Your task to perform on an android device: Turn off the flashlight Image 0: 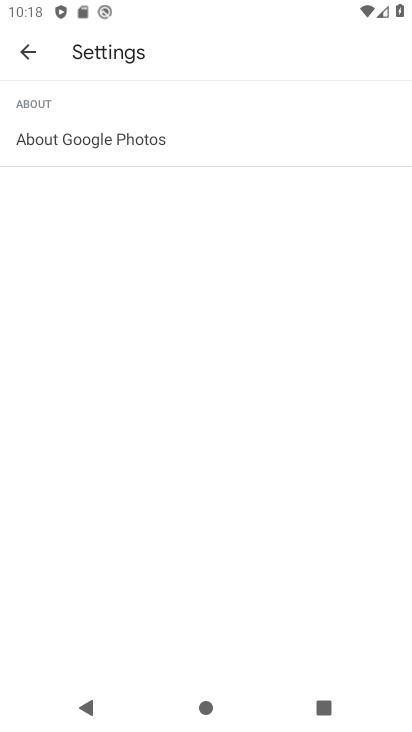
Step 0: press home button
Your task to perform on an android device: Turn off the flashlight Image 1: 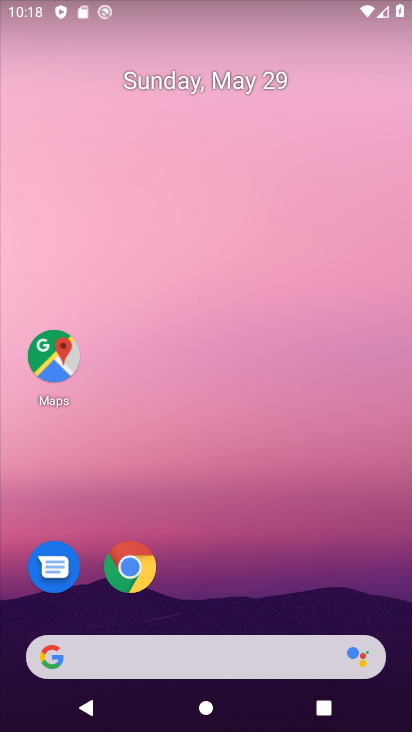
Step 1: task complete